Your task to perform on an android device: remove spam from my inbox in the gmail app Image 0: 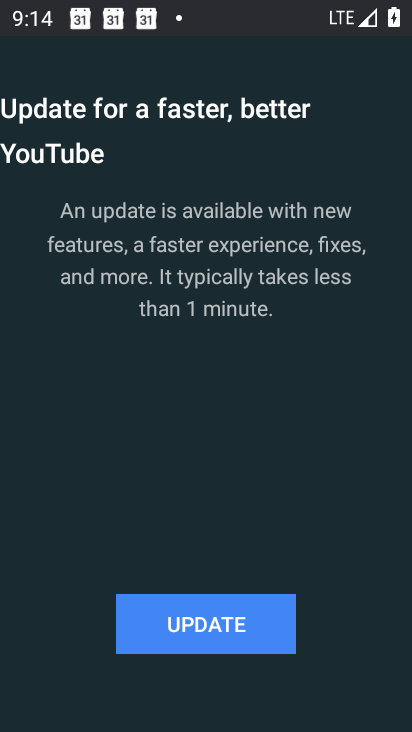
Step 0: press back button
Your task to perform on an android device: remove spam from my inbox in the gmail app Image 1: 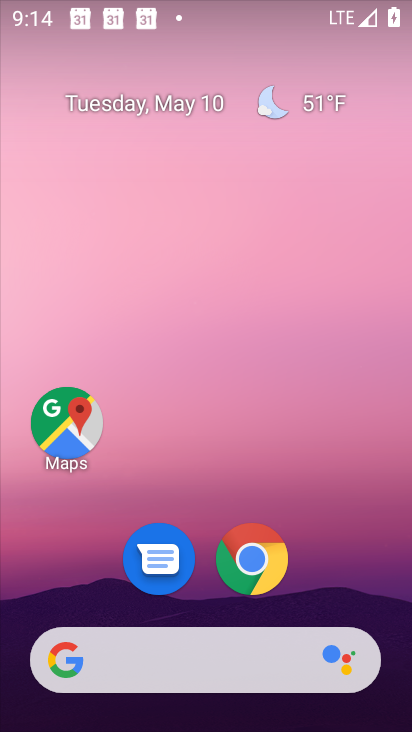
Step 1: drag from (342, 533) to (279, 43)
Your task to perform on an android device: remove spam from my inbox in the gmail app Image 2: 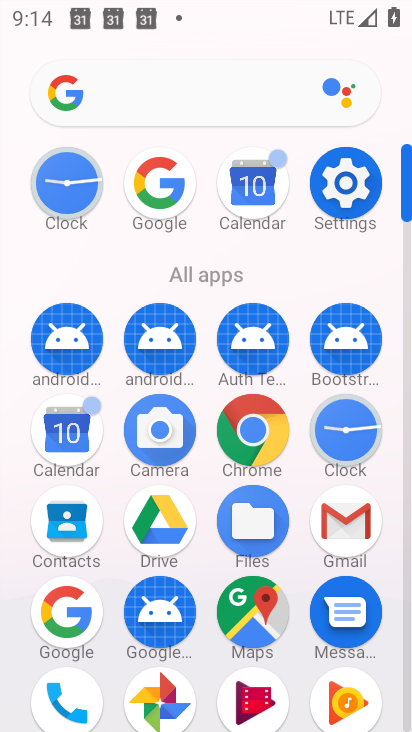
Step 2: click (346, 523)
Your task to perform on an android device: remove spam from my inbox in the gmail app Image 3: 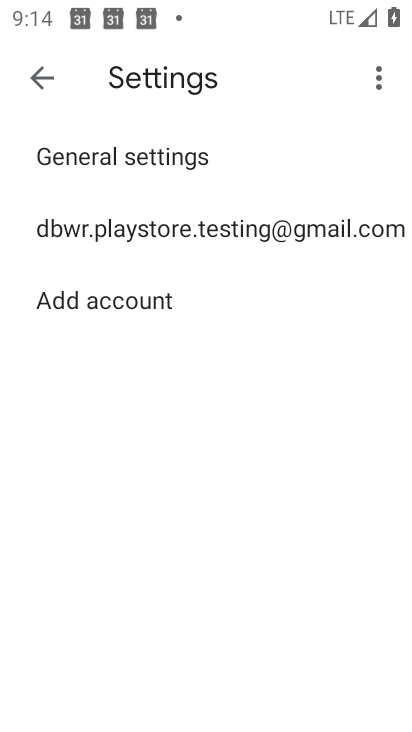
Step 3: press back button
Your task to perform on an android device: remove spam from my inbox in the gmail app Image 4: 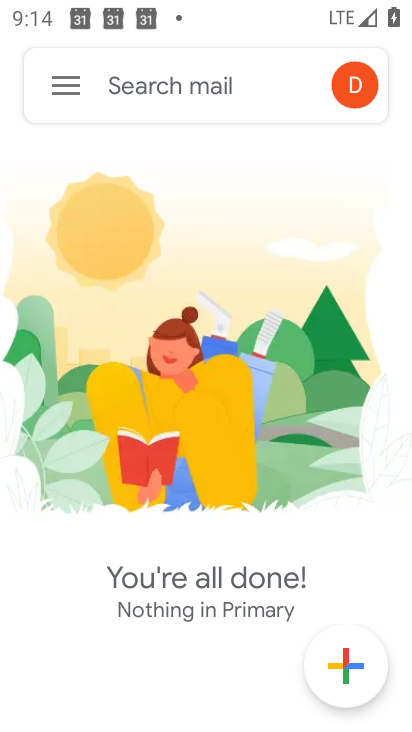
Step 4: click (68, 82)
Your task to perform on an android device: remove spam from my inbox in the gmail app Image 5: 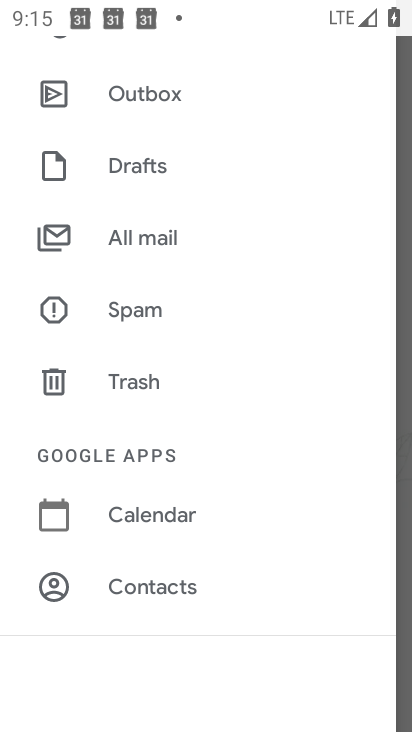
Step 5: click (120, 310)
Your task to perform on an android device: remove spam from my inbox in the gmail app Image 6: 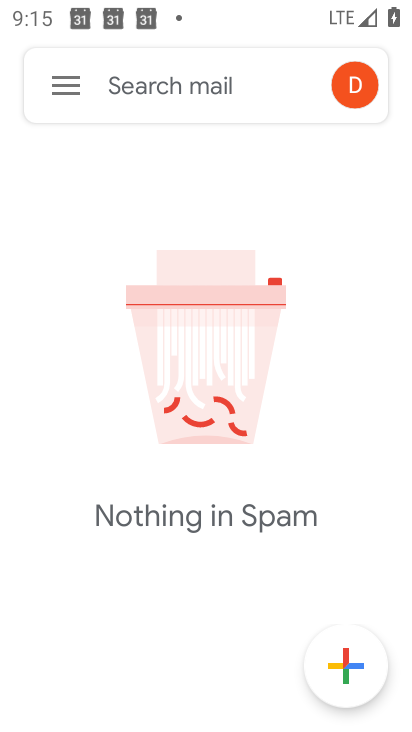
Step 6: task complete